Your task to perform on an android device: open a bookmark in the chrome app Image 0: 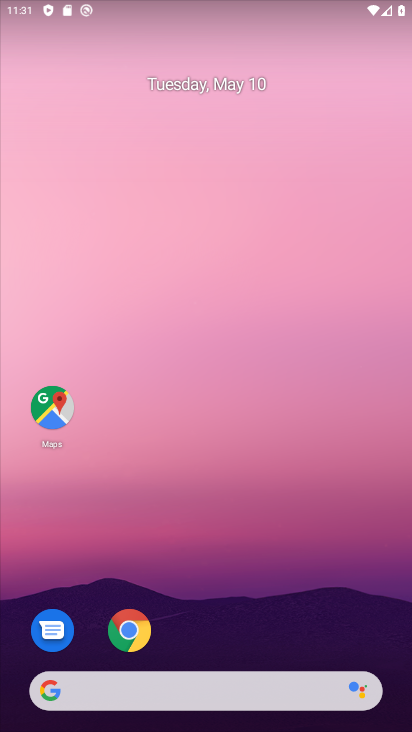
Step 0: drag from (319, 619) to (187, 127)
Your task to perform on an android device: open a bookmark in the chrome app Image 1: 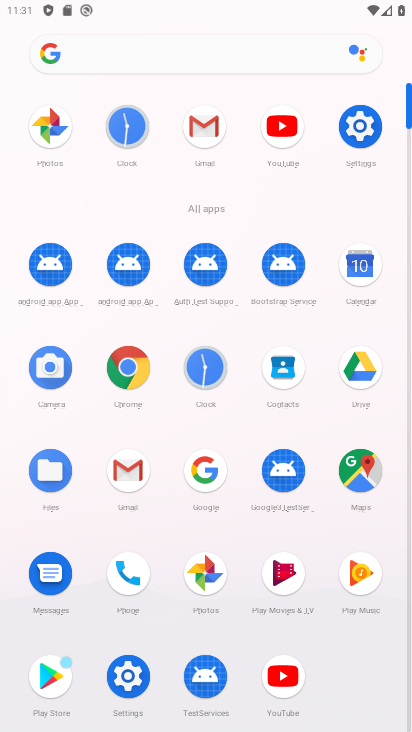
Step 1: click (129, 376)
Your task to perform on an android device: open a bookmark in the chrome app Image 2: 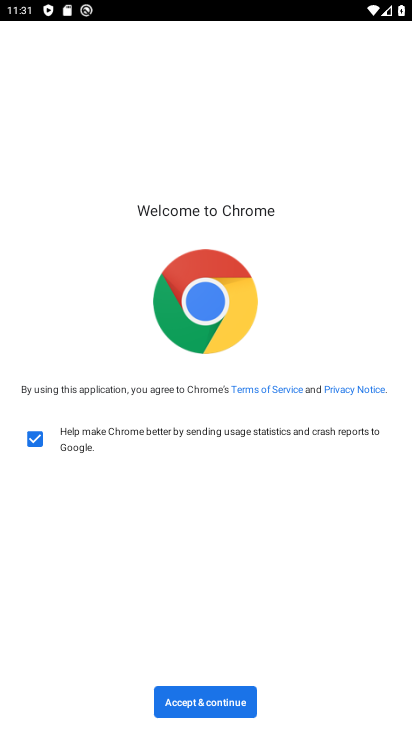
Step 2: click (244, 707)
Your task to perform on an android device: open a bookmark in the chrome app Image 3: 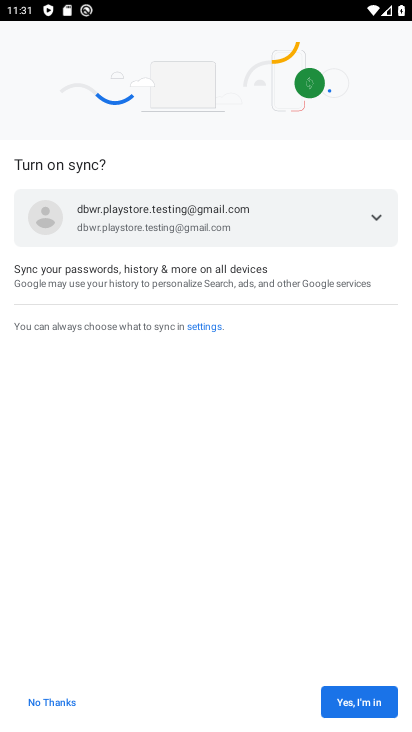
Step 3: click (350, 695)
Your task to perform on an android device: open a bookmark in the chrome app Image 4: 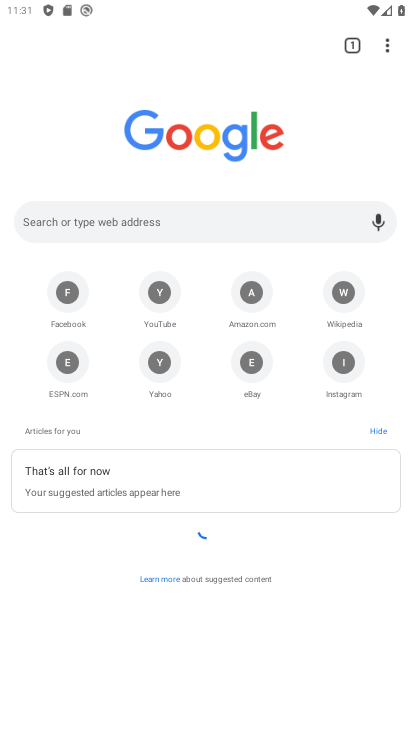
Step 4: task complete